Your task to perform on an android device: turn on location history Image 0: 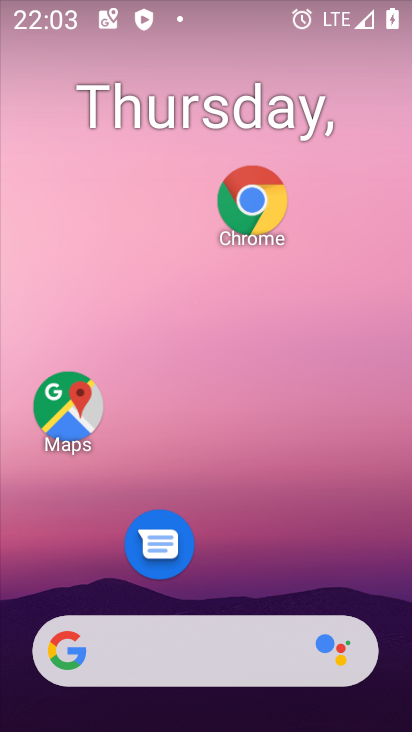
Step 0: click (77, 413)
Your task to perform on an android device: turn on location history Image 1: 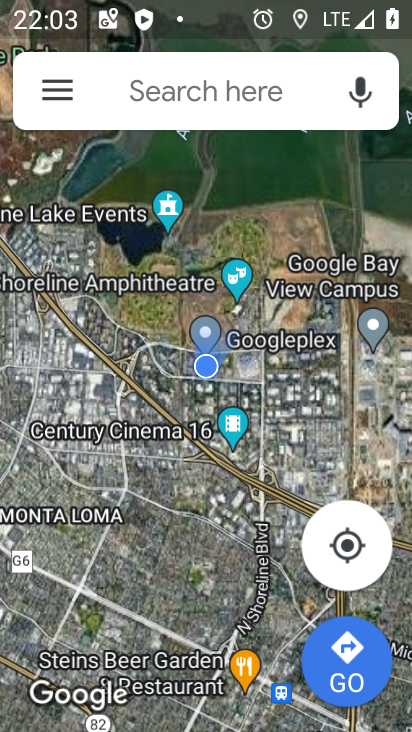
Step 1: click (60, 99)
Your task to perform on an android device: turn on location history Image 2: 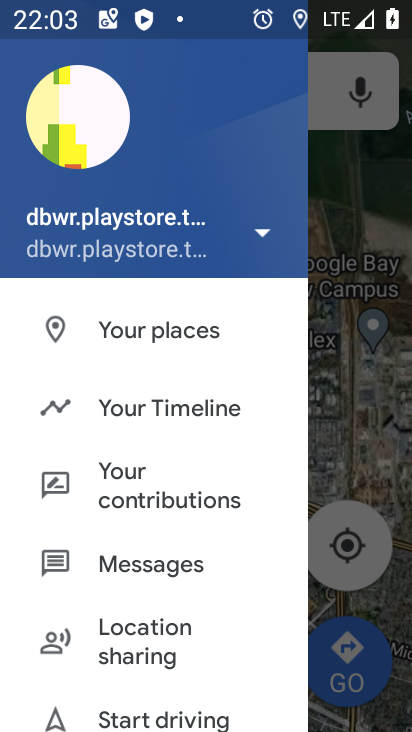
Step 2: click (127, 395)
Your task to perform on an android device: turn on location history Image 3: 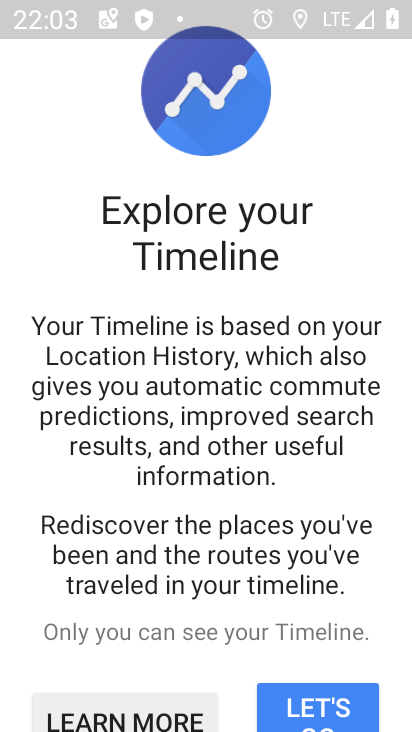
Step 3: click (289, 726)
Your task to perform on an android device: turn on location history Image 4: 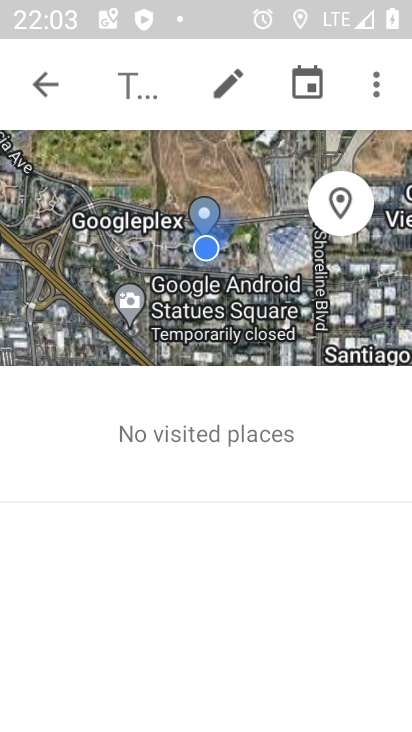
Step 4: click (388, 73)
Your task to perform on an android device: turn on location history Image 5: 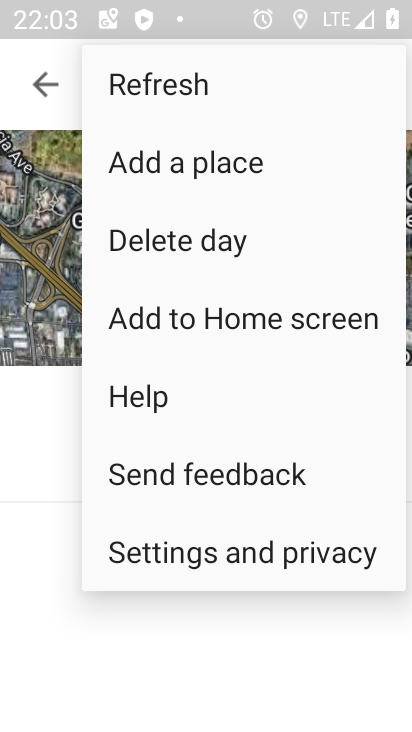
Step 5: click (216, 541)
Your task to perform on an android device: turn on location history Image 6: 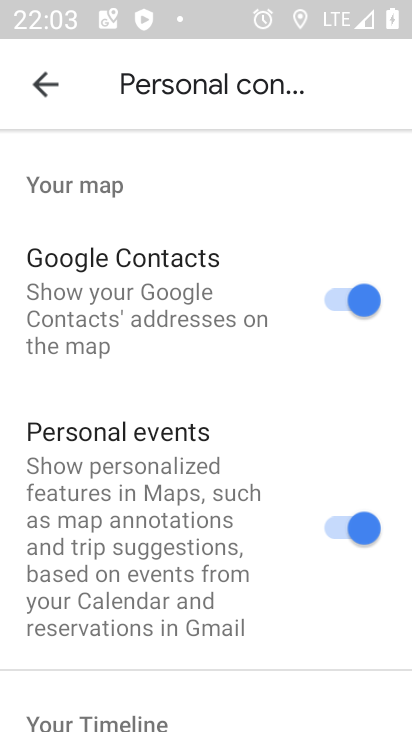
Step 6: drag from (154, 691) to (243, 262)
Your task to perform on an android device: turn on location history Image 7: 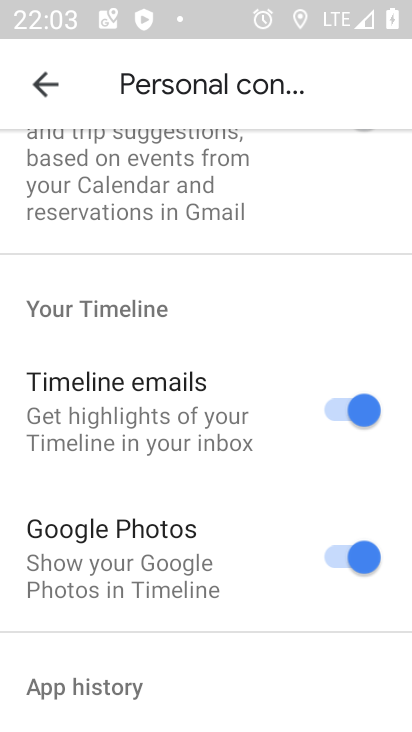
Step 7: drag from (194, 652) to (248, 251)
Your task to perform on an android device: turn on location history Image 8: 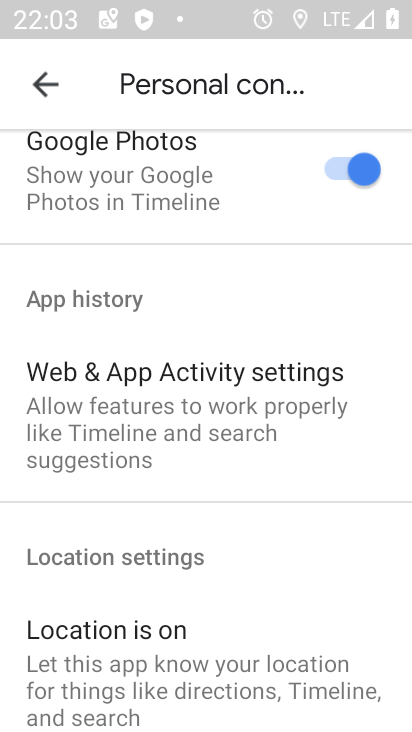
Step 8: drag from (143, 675) to (230, 287)
Your task to perform on an android device: turn on location history Image 9: 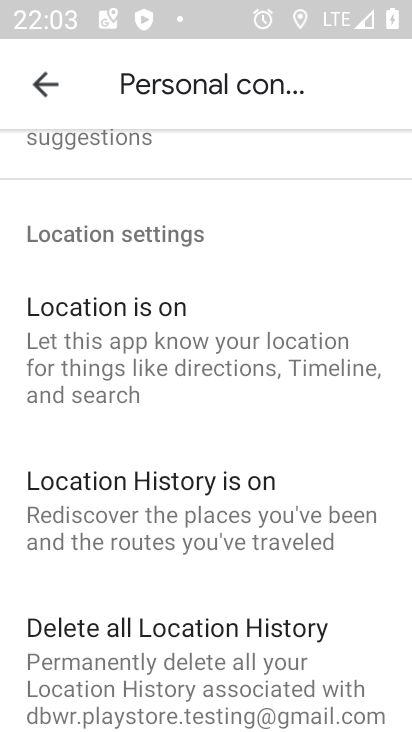
Step 9: click (137, 528)
Your task to perform on an android device: turn on location history Image 10: 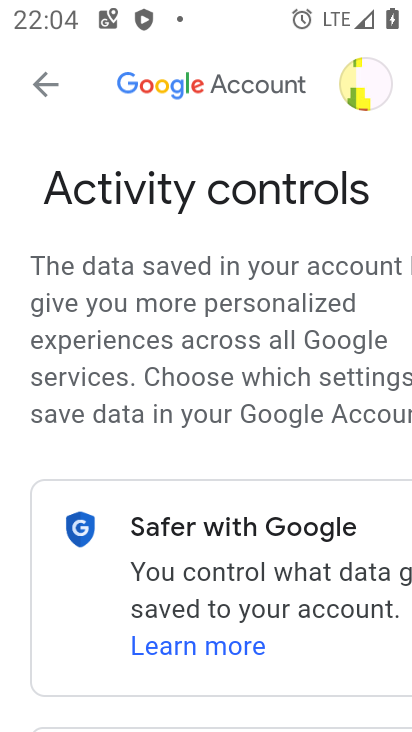
Step 10: task complete